Your task to perform on an android device: turn on bluetooth scan Image 0: 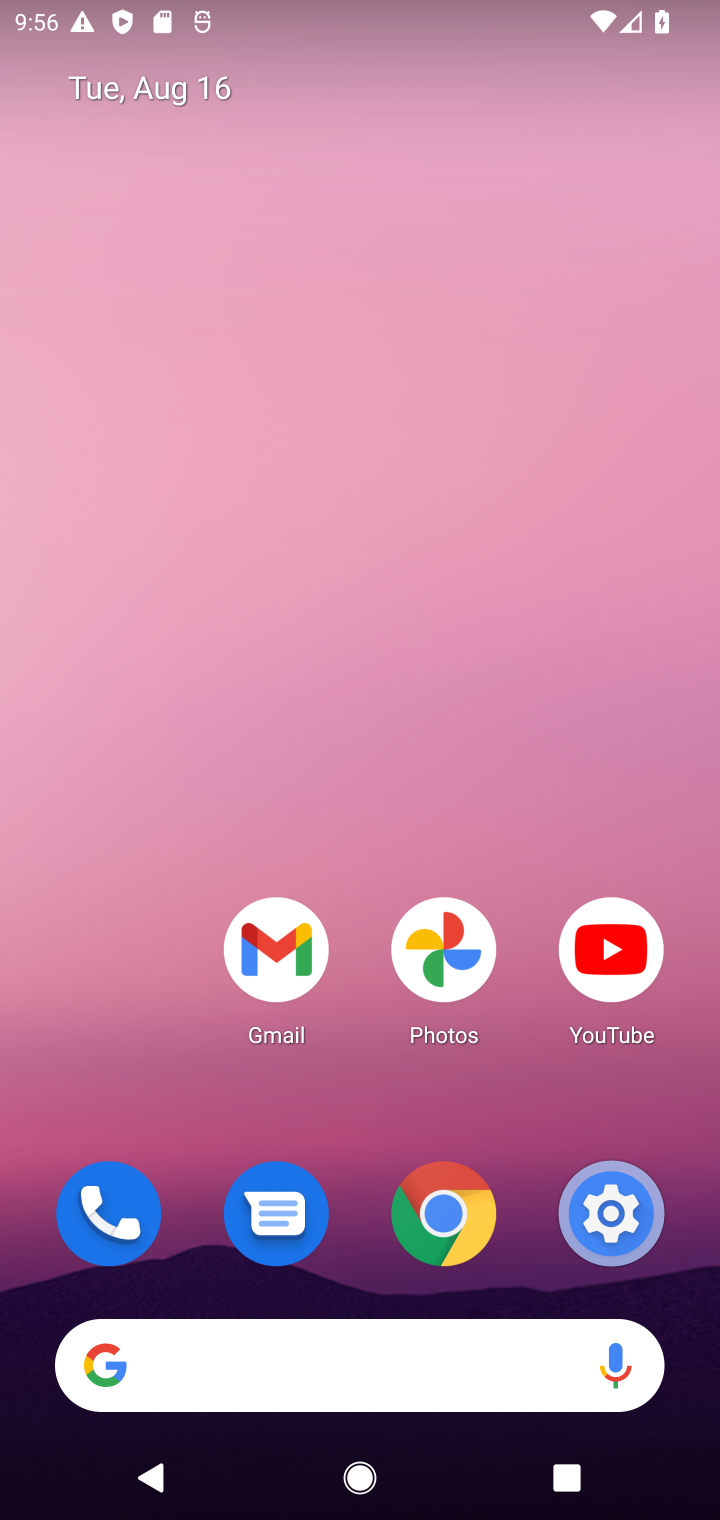
Step 0: click (635, 1217)
Your task to perform on an android device: turn on bluetooth scan Image 1: 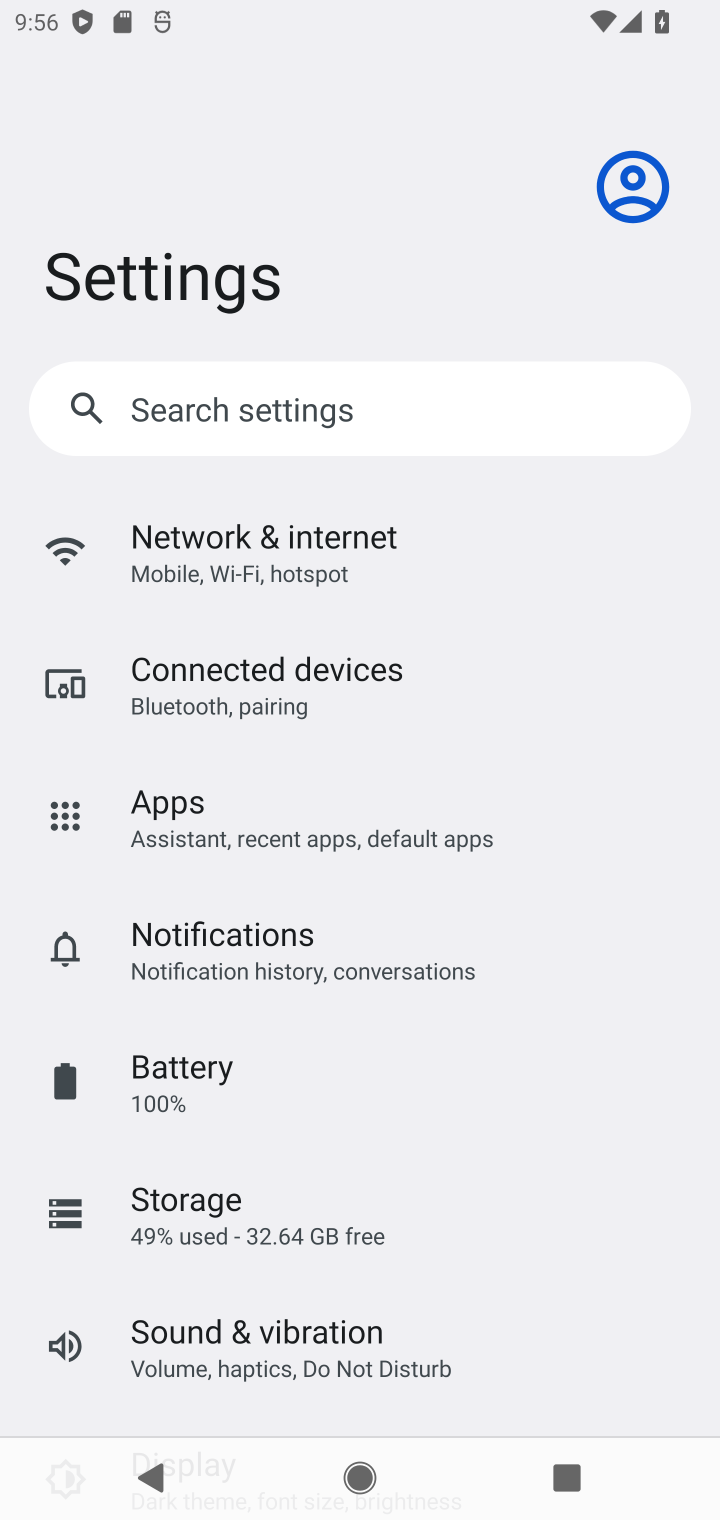
Step 1: drag from (461, 1214) to (401, 540)
Your task to perform on an android device: turn on bluetooth scan Image 2: 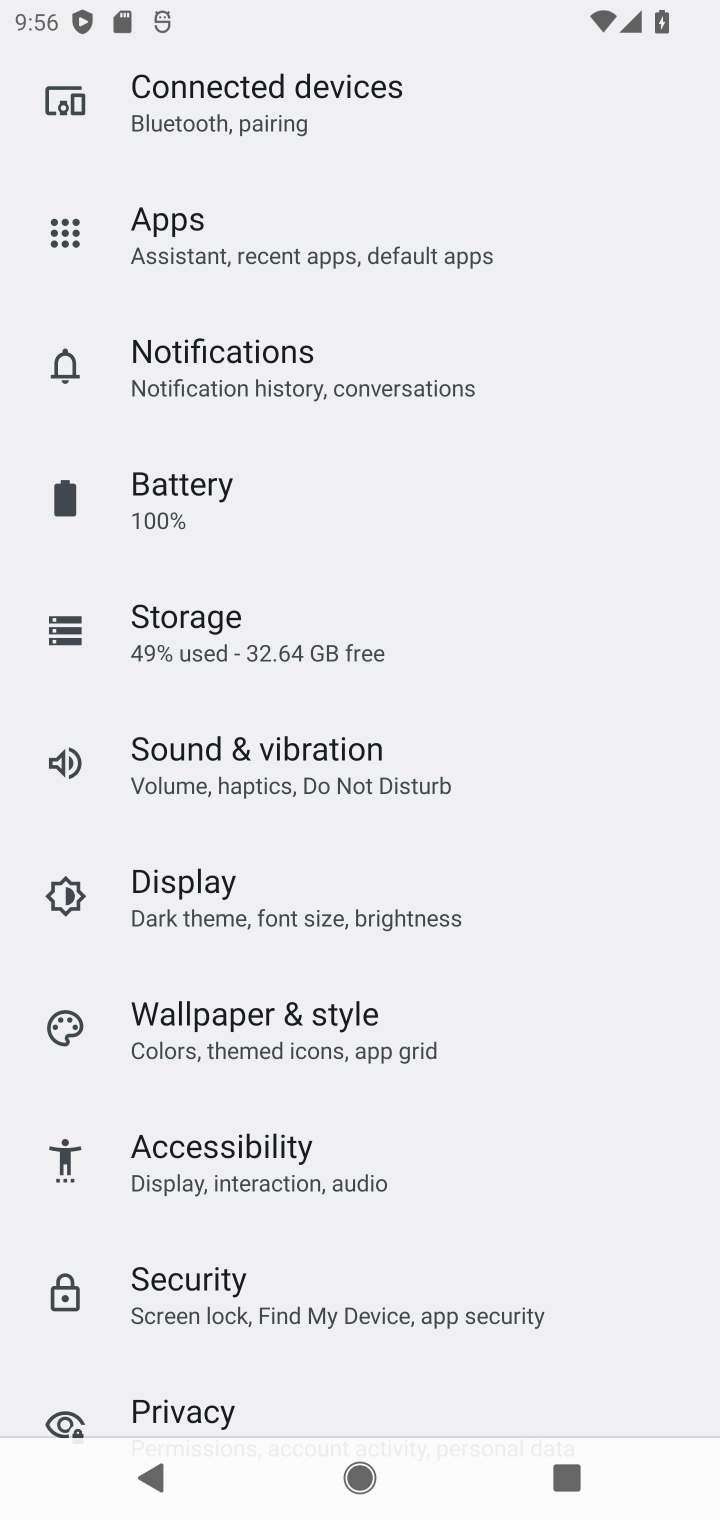
Step 2: drag from (373, 1045) to (396, 286)
Your task to perform on an android device: turn on bluetooth scan Image 3: 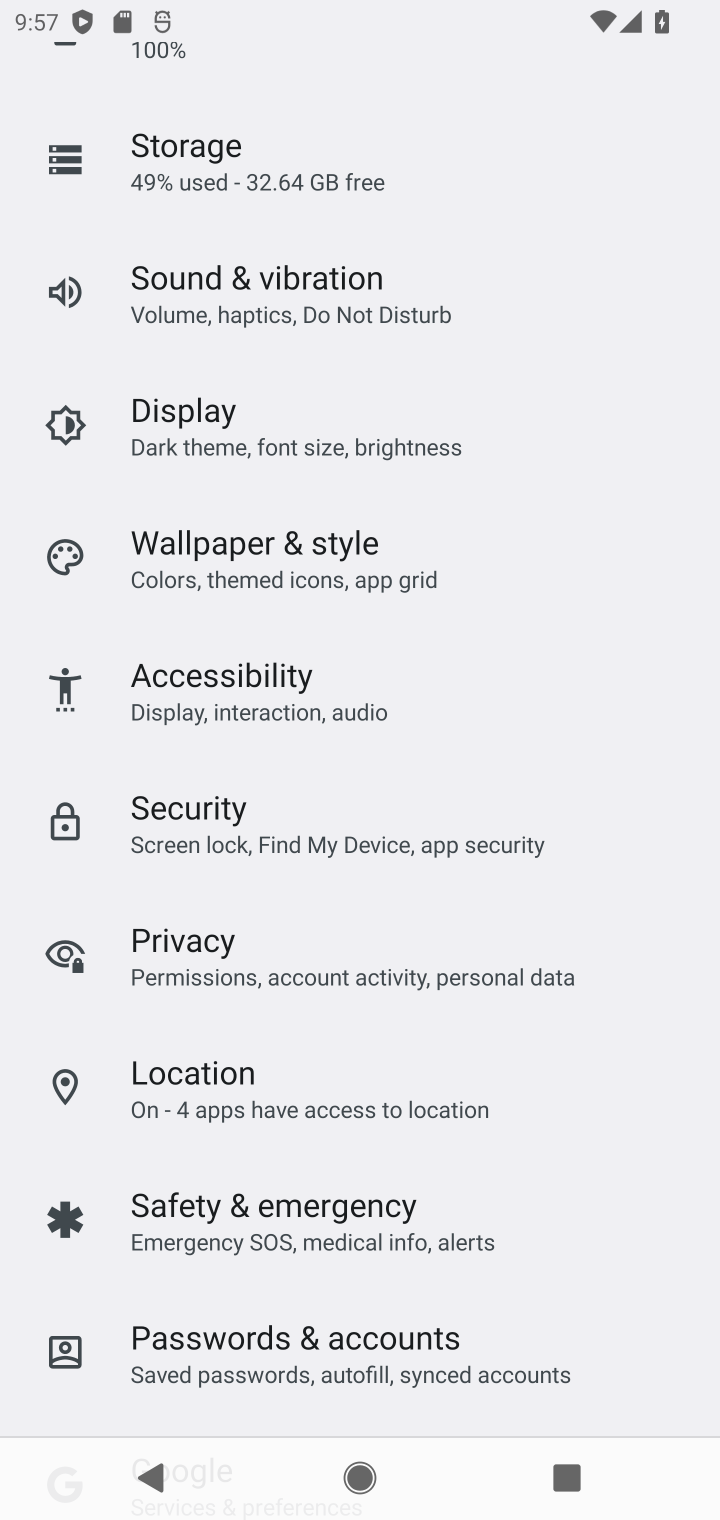
Step 3: click (245, 1093)
Your task to perform on an android device: turn on bluetooth scan Image 4: 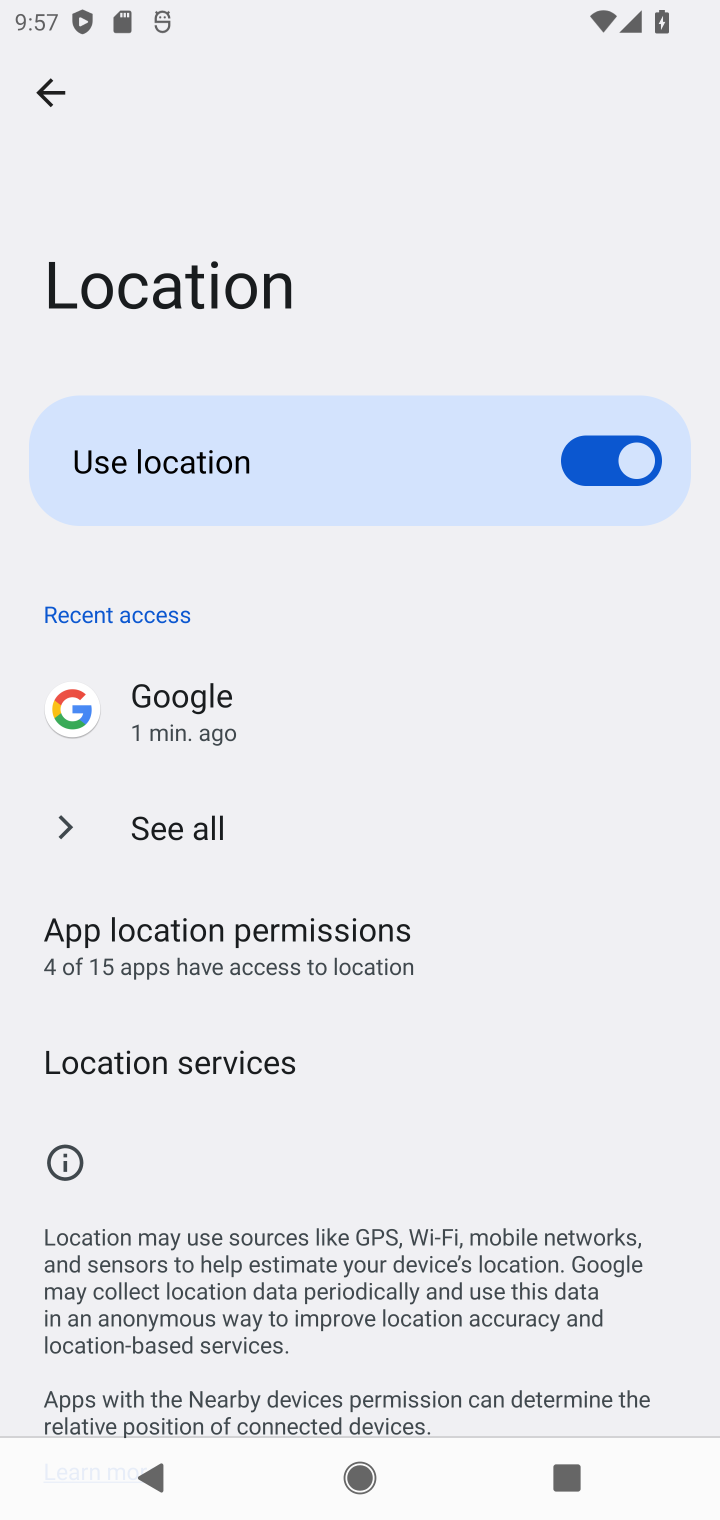
Step 4: drag from (268, 1227) to (244, 899)
Your task to perform on an android device: turn on bluetooth scan Image 5: 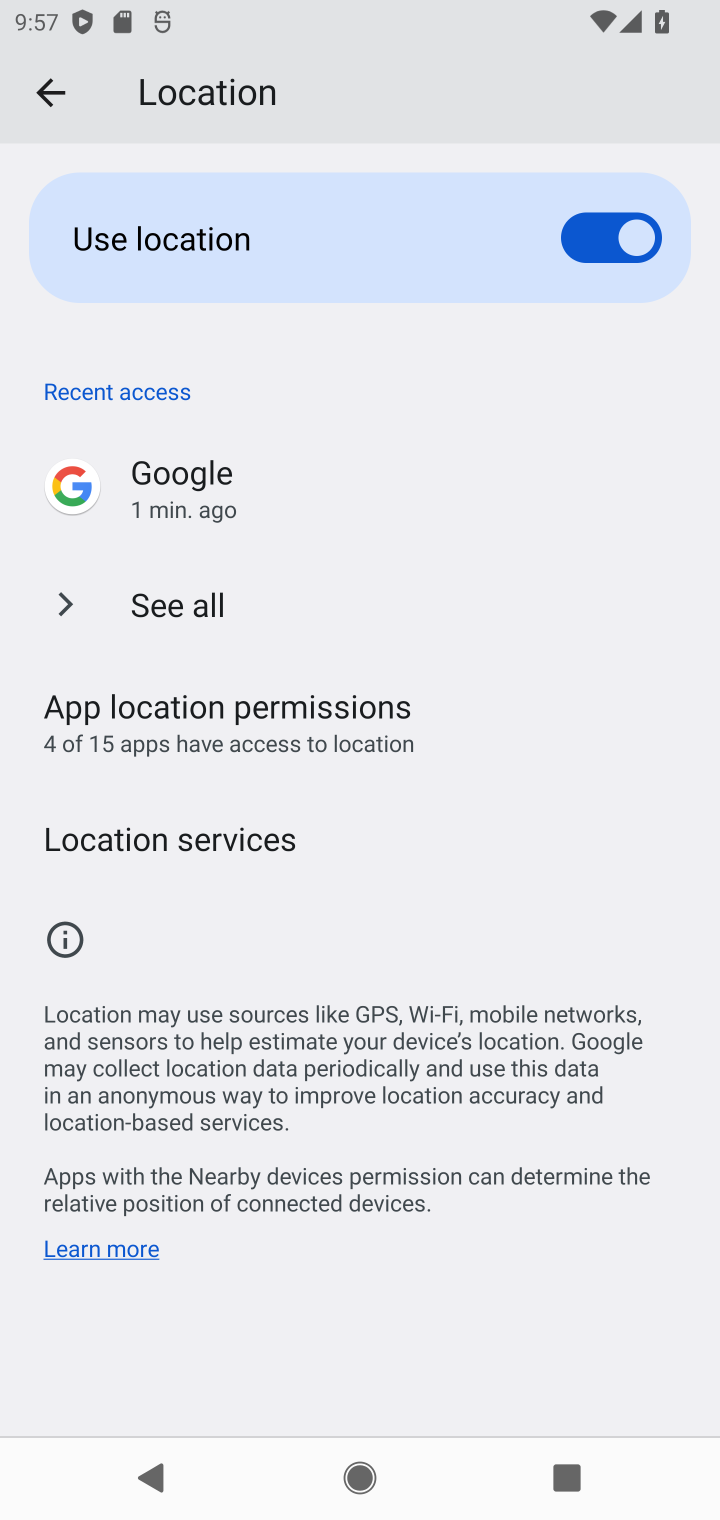
Step 5: click (188, 858)
Your task to perform on an android device: turn on bluetooth scan Image 6: 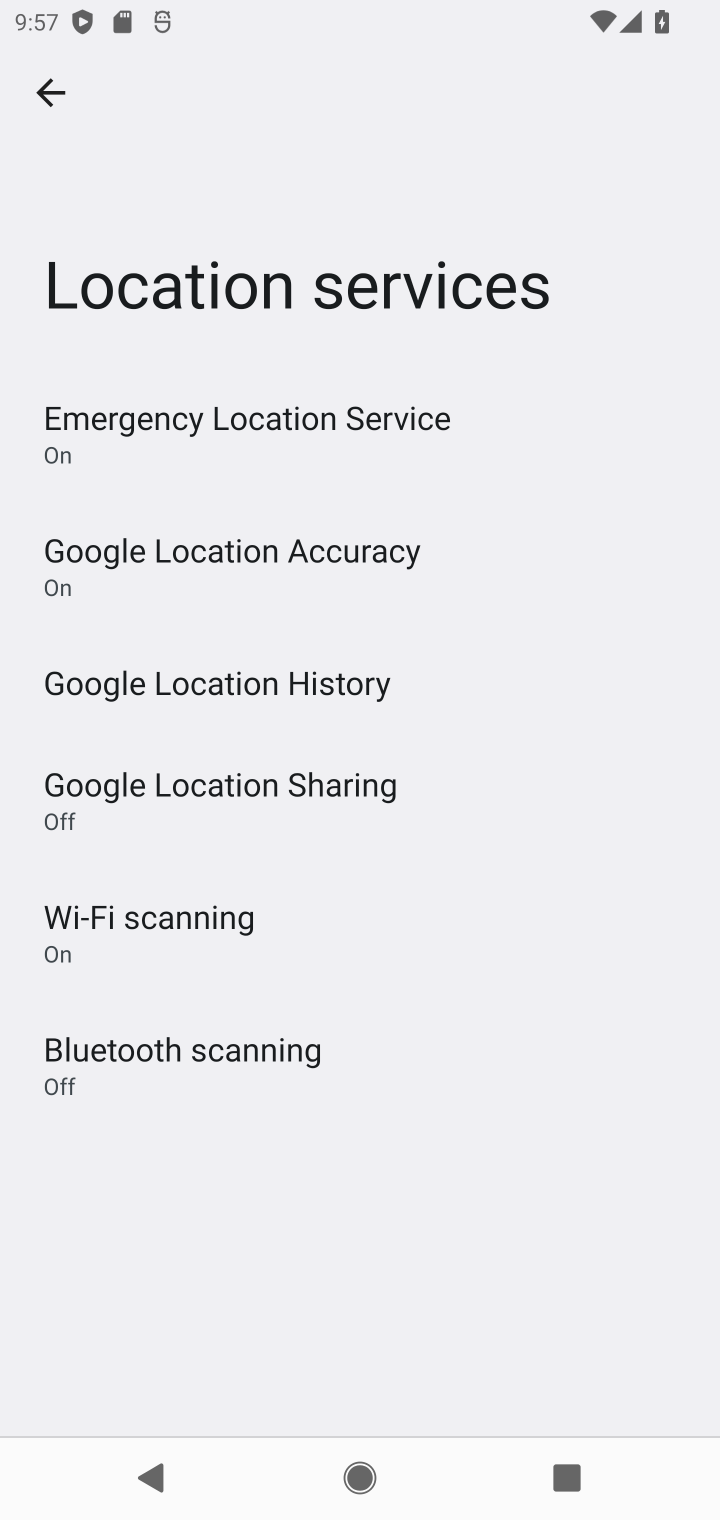
Step 6: click (211, 1058)
Your task to perform on an android device: turn on bluetooth scan Image 7: 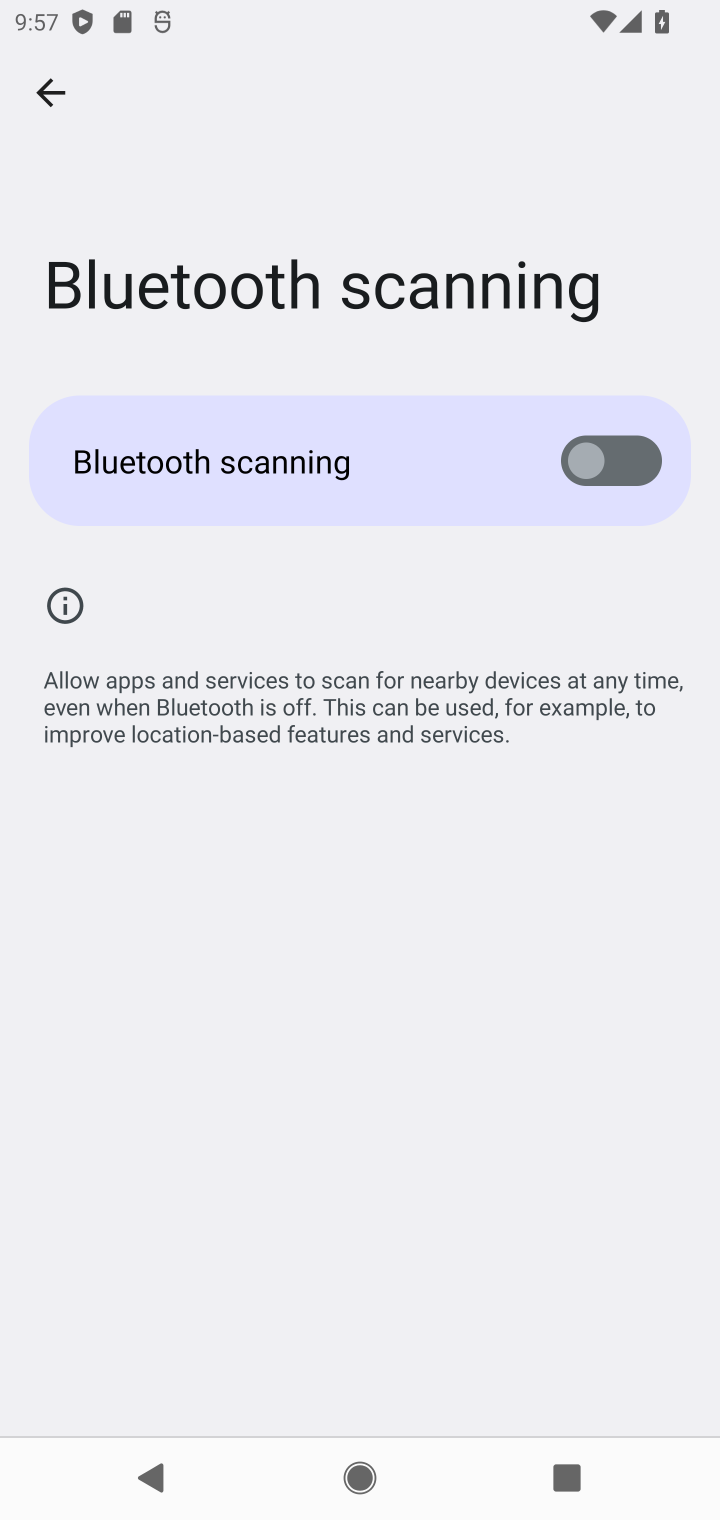
Step 7: click (609, 475)
Your task to perform on an android device: turn on bluetooth scan Image 8: 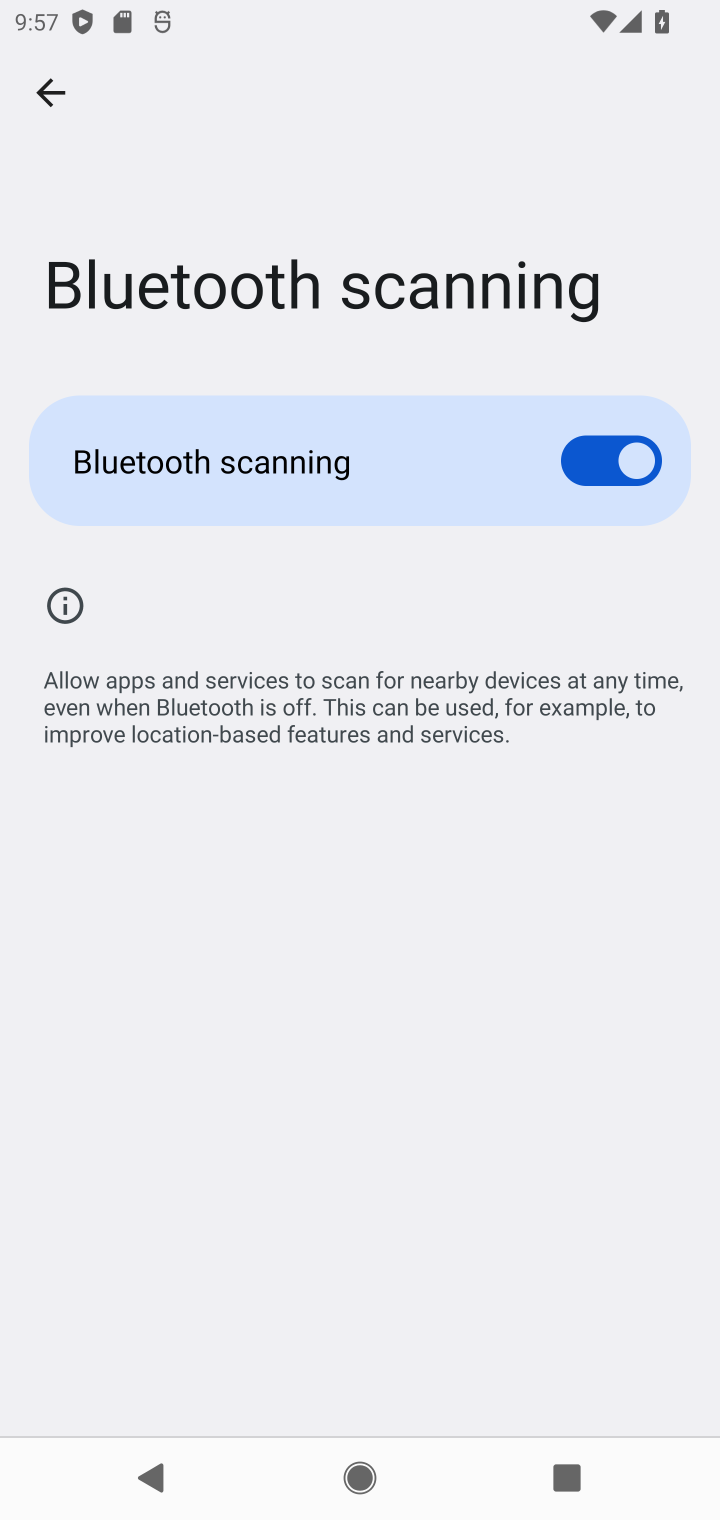
Step 8: task complete